Your task to perform on an android device: toggle priority inbox in the gmail app Image 0: 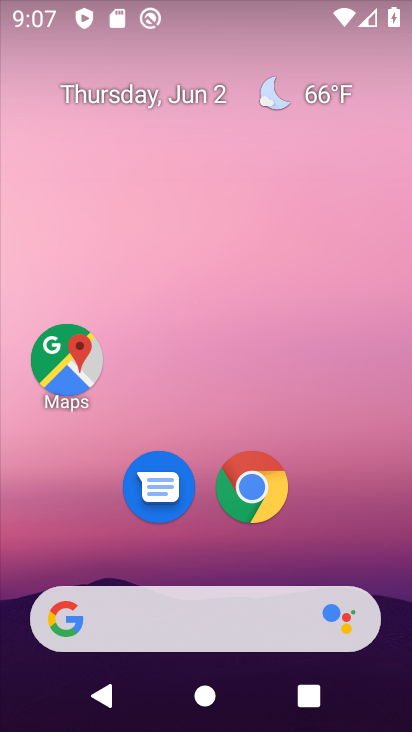
Step 0: drag from (227, 725) to (171, 193)
Your task to perform on an android device: toggle priority inbox in the gmail app Image 1: 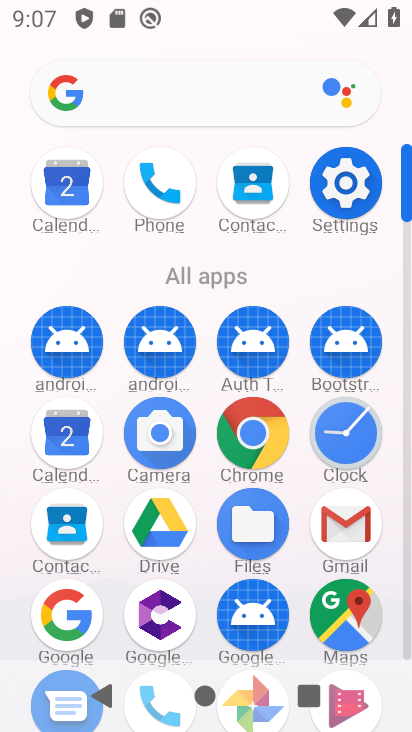
Step 1: click (344, 531)
Your task to perform on an android device: toggle priority inbox in the gmail app Image 2: 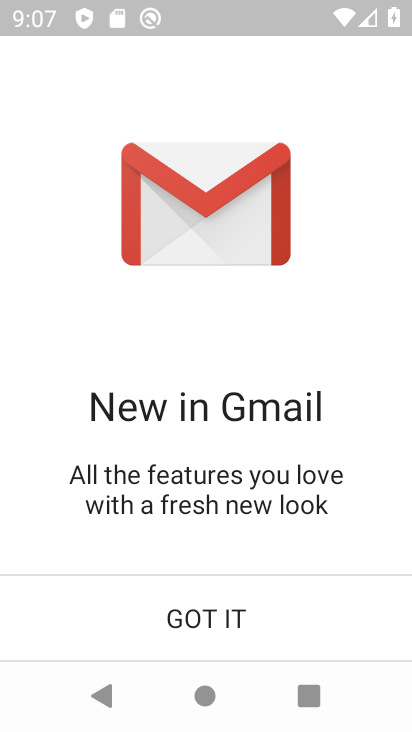
Step 2: click (216, 617)
Your task to perform on an android device: toggle priority inbox in the gmail app Image 3: 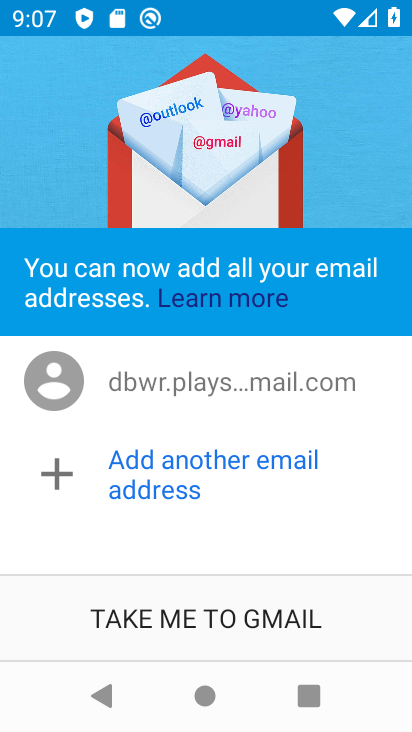
Step 3: click (216, 617)
Your task to perform on an android device: toggle priority inbox in the gmail app Image 4: 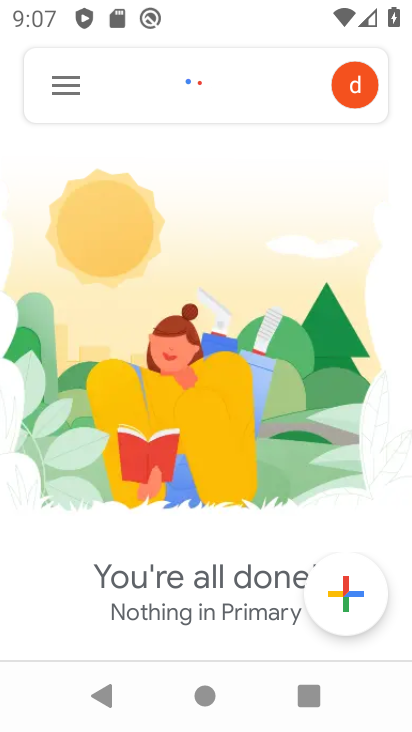
Step 4: click (64, 86)
Your task to perform on an android device: toggle priority inbox in the gmail app Image 5: 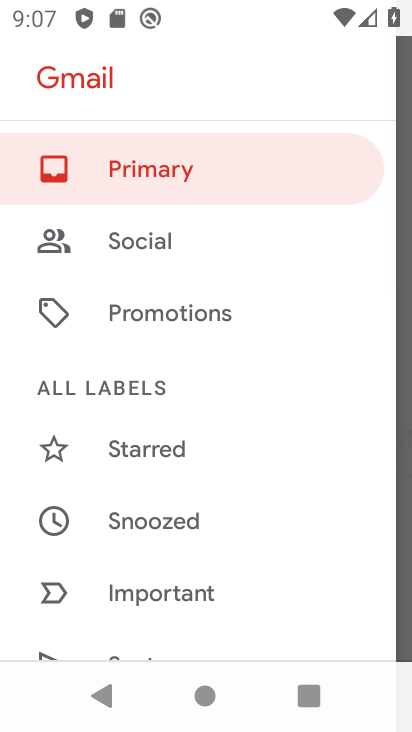
Step 5: drag from (164, 599) to (143, 258)
Your task to perform on an android device: toggle priority inbox in the gmail app Image 6: 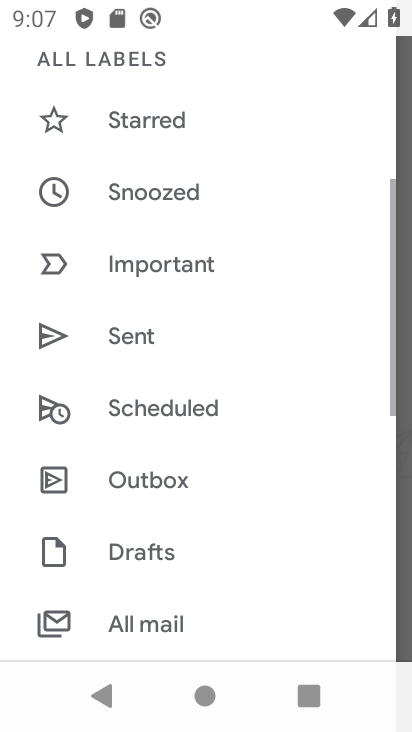
Step 6: drag from (166, 624) to (153, 281)
Your task to perform on an android device: toggle priority inbox in the gmail app Image 7: 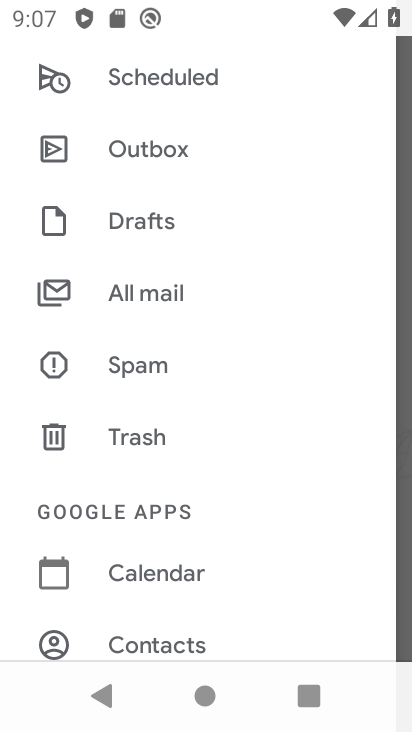
Step 7: drag from (163, 603) to (149, 270)
Your task to perform on an android device: toggle priority inbox in the gmail app Image 8: 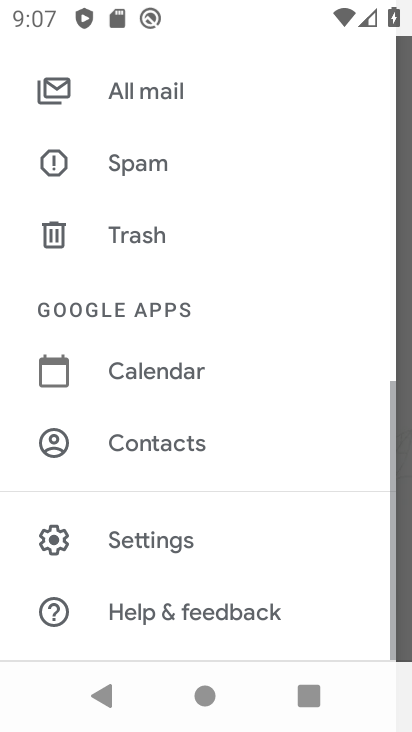
Step 8: click (154, 536)
Your task to perform on an android device: toggle priority inbox in the gmail app Image 9: 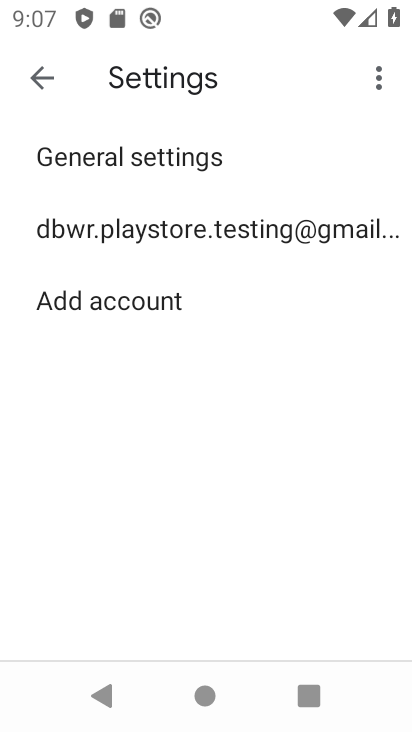
Step 9: click (172, 223)
Your task to perform on an android device: toggle priority inbox in the gmail app Image 10: 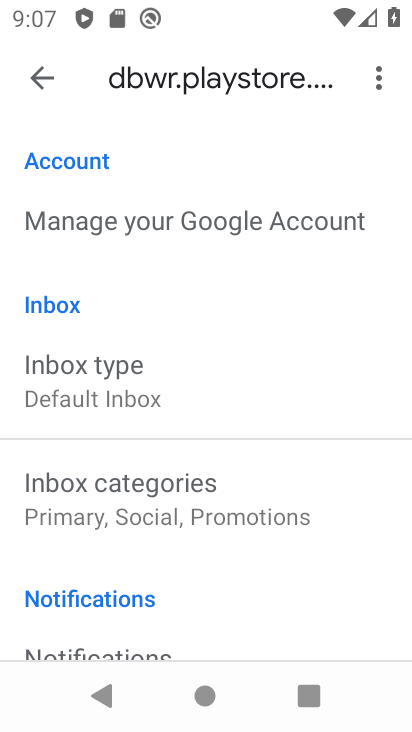
Step 10: click (108, 383)
Your task to perform on an android device: toggle priority inbox in the gmail app Image 11: 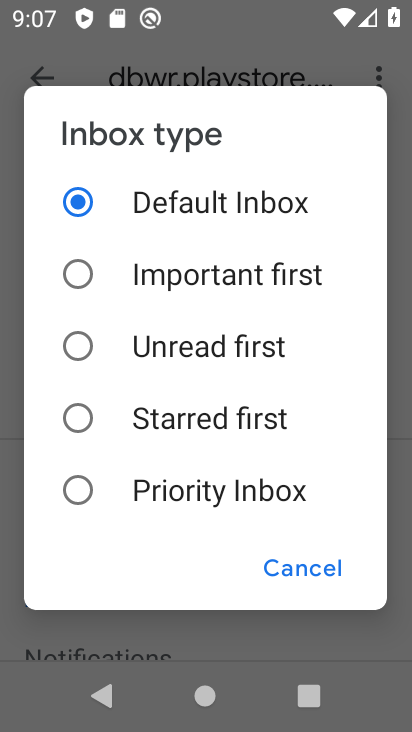
Step 11: click (73, 495)
Your task to perform on an android device: toggle priority inbox in the gmail app Image 12: 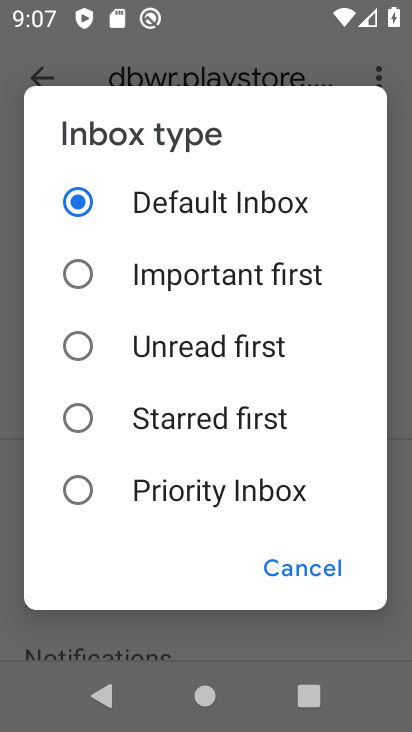
Step 12: click (76, 489)
Your task to perform on an android device: toggle priority inbox in the gmail app Image 13: 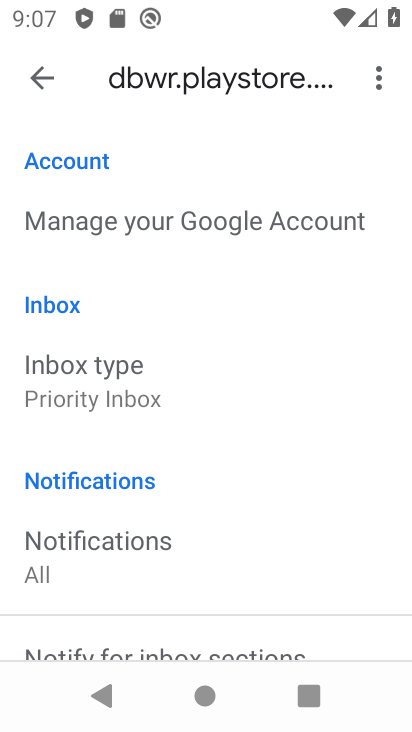
Step 13: task complete